Your task to perform on an android device: Show me productivity apps on the Play Store Image 0: 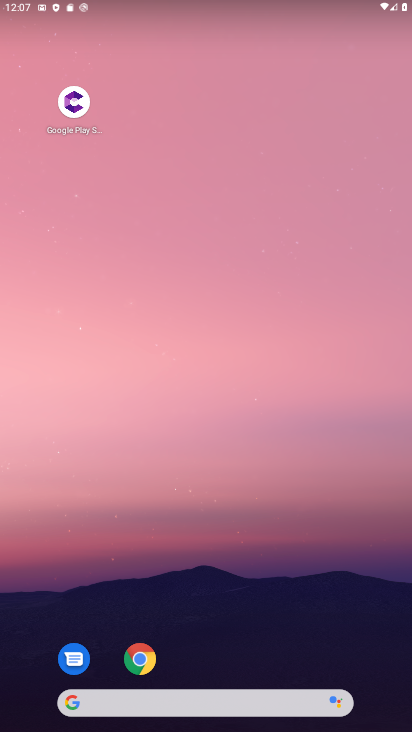
Step 0: drag from (251, 663) to (164, 12)
Your task to perform on an android device: Show me productivity apps on the Play Store Image 1: 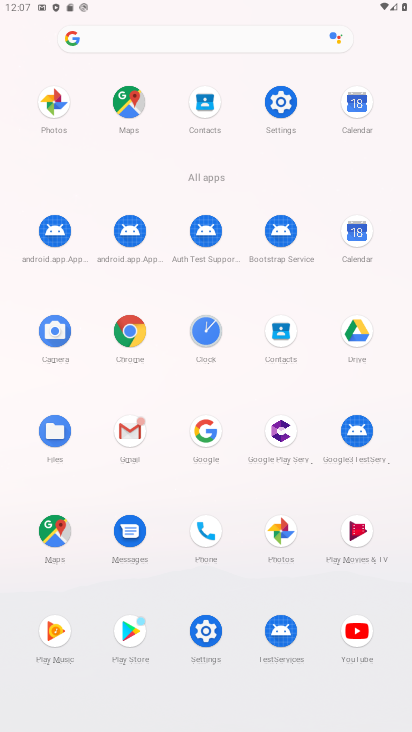
Step 1: click (127, 636)
Your task to perform on an android device: Show me productivity apps on the Play Store Image 2: 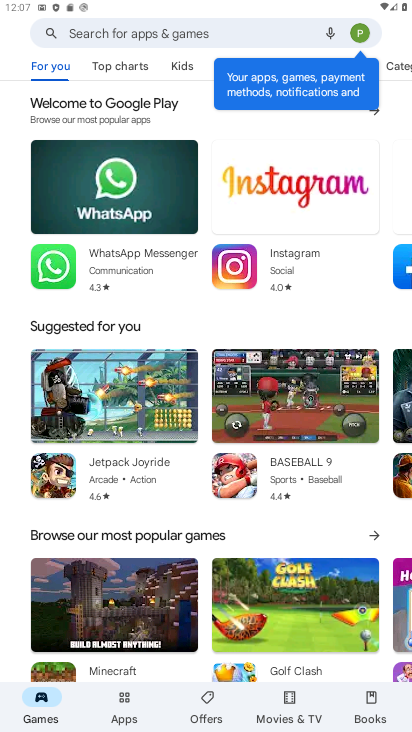
Step 2: click (129, 708)
Your task to perform on an android device: Show me productivity apps on the Play Store Image 3: 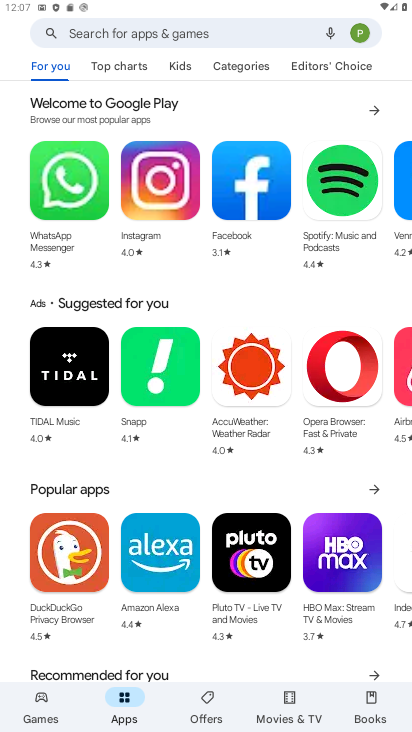
Step 3: click (227, 62)
Your task to perform on an android device: Show me productivity apps on the Play Store Image 4: 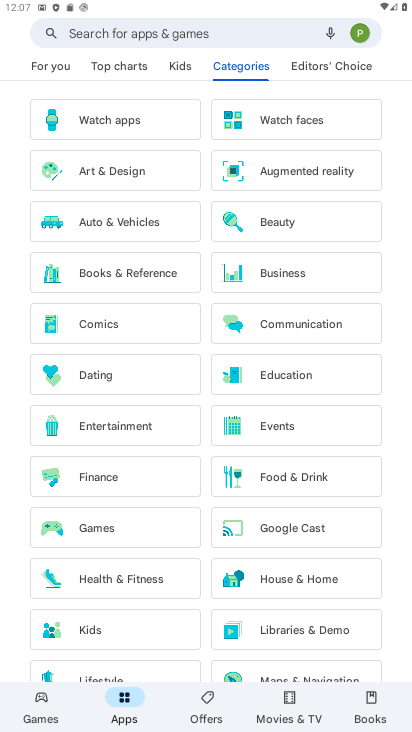
Step 4: drag from (183, 621) to (222, 256)
Your task to perform on an android device: Show me productivity apps on the Play Store Image 5: 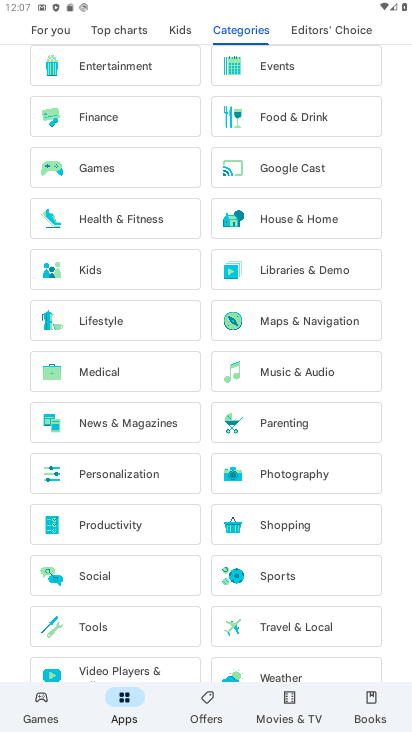
Step 5: click (163, 527)
Your task to perform on an android device: Show me productivity apps on the Play Store Image 6: 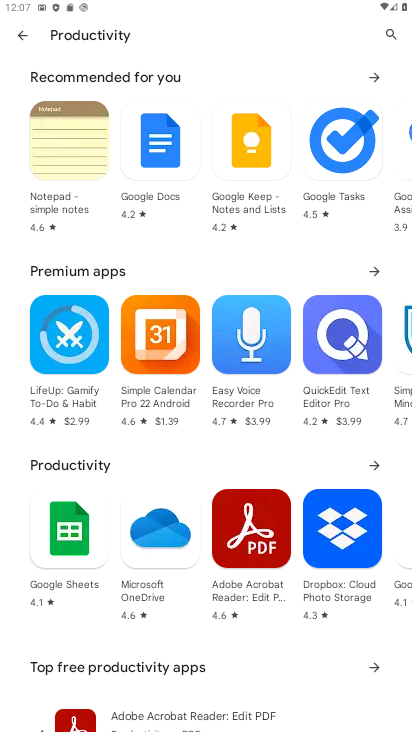
Step 6: task complete